Your task to perform on an android device: Open the calendar app, open the side menu, and click the "Day" option Image 0: 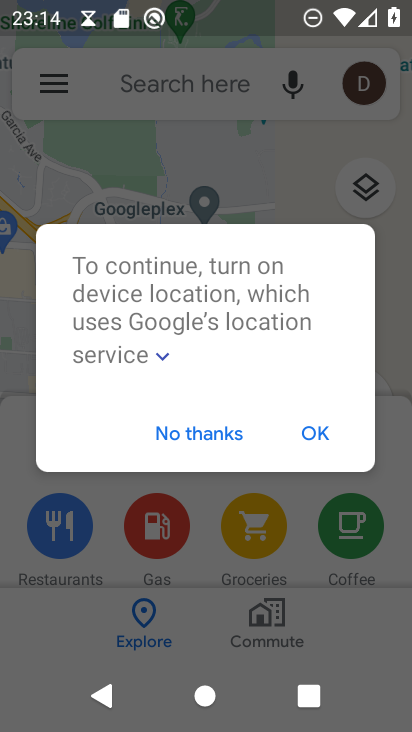
Step 0: press home button
Your task to perform on an android device: Open the calendar app, open the side menu, and click the "Day" option Image 1: 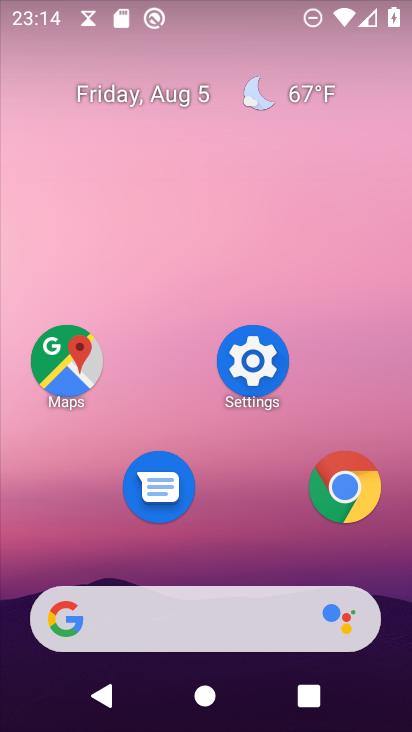
Step 1: drag from (191, 632) to (211, 87)
Your task to perform on an android device: Open the calendar app, open the side menu, and click the "Day" option Image 2: 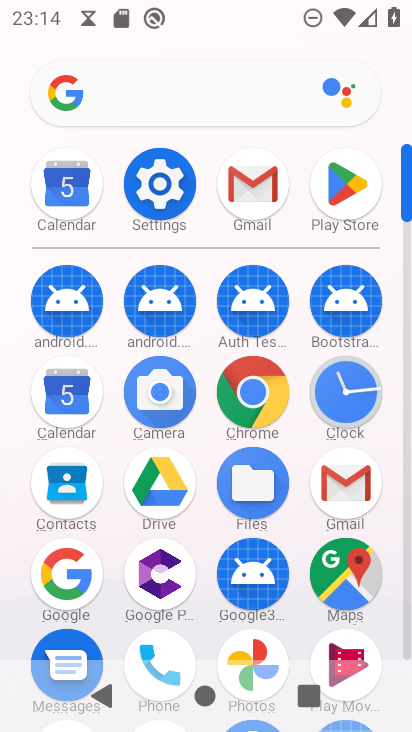
Step 2: click (67, 402)
Your task to perform on an android device: Open the calendar app, open the side menu, and click the "Day" option Image 3: 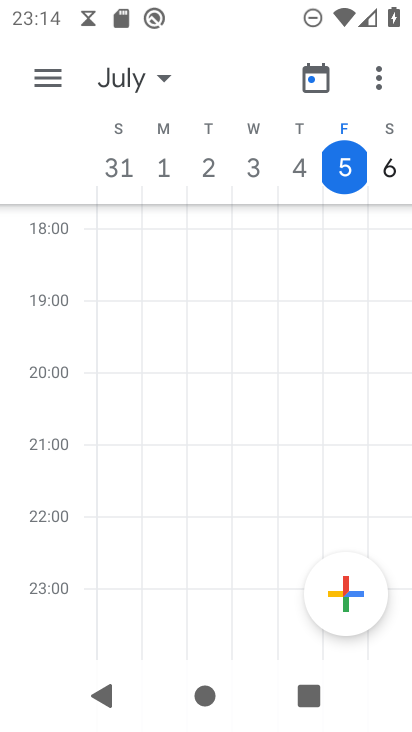
Step 3: click (52, 77)
Your task to perform on an android device: Open the calendar app, open the side menu, and click the "Day" option Image 4: 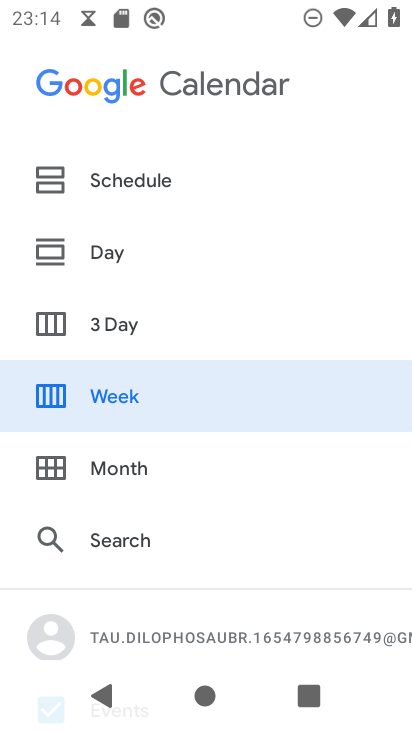
Step 4: click (120, 248)
Your task to perform on an android device: Open the calendar app, open the side menu, and click the "Day" option Image 5: 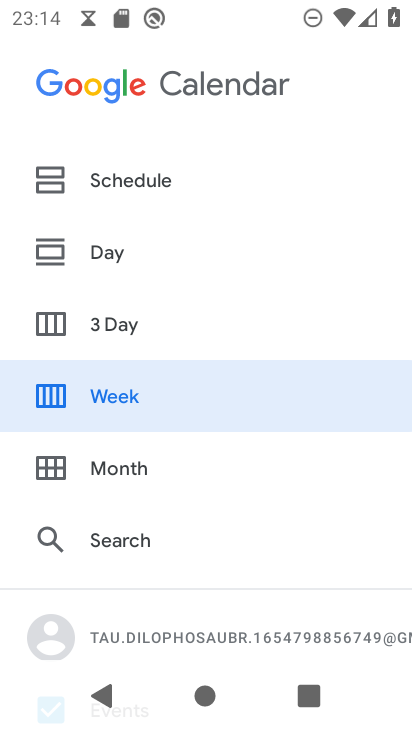
Step 5: click (110, 260)
Your task to perform on an android device: Open the calendar app, open the side menu, and click the "Day" option Image 6: 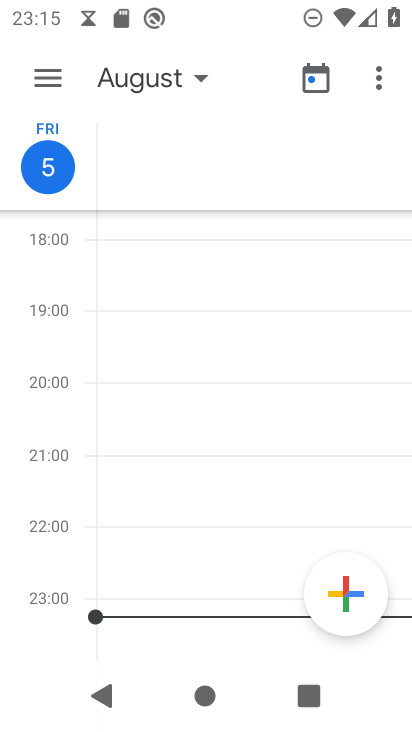
Step 6: task complete